Your task to perform on an android device: remove spam from my inbox in the gmail app Image 0: 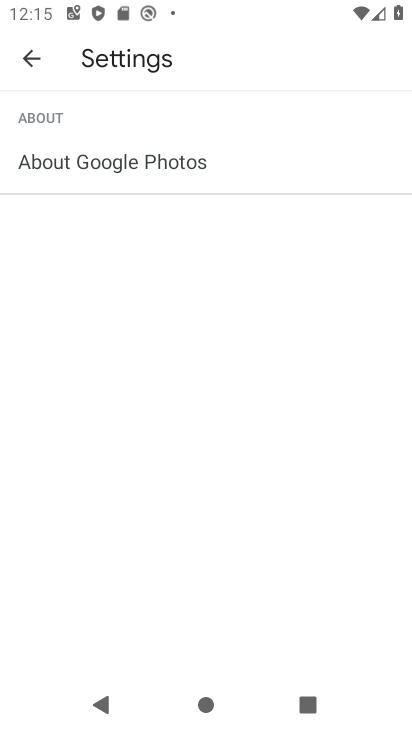
Step 0: press home button
Your task to perform on an android device: remove spam from my inbox in the gmail app Image 1: 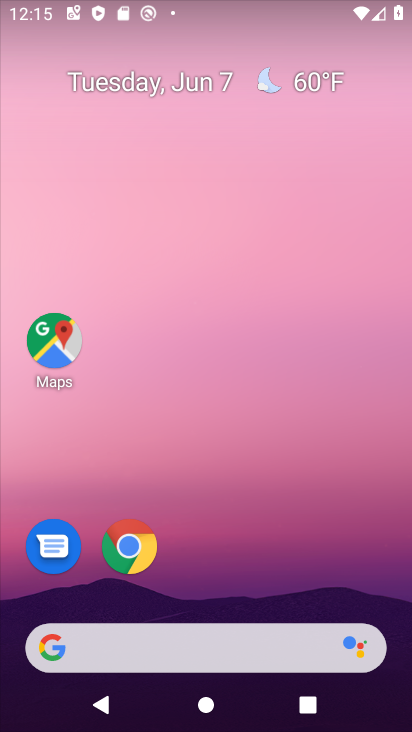
Step 1: drag from (139, 562) to (103, 90)
Your task to perform on an android device: remove spam from my inbox in the gmail app Image 2: 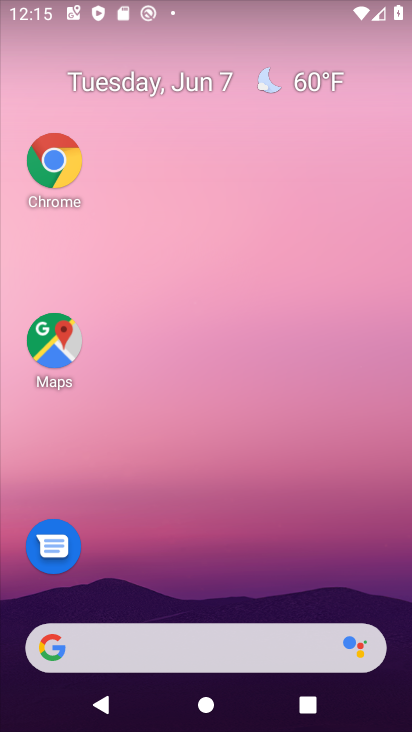
Step 2: drag from (151, 405) to (108, 153)
Your task to perform on an android device: remove spam from my inbox in the gmail app Image 3: 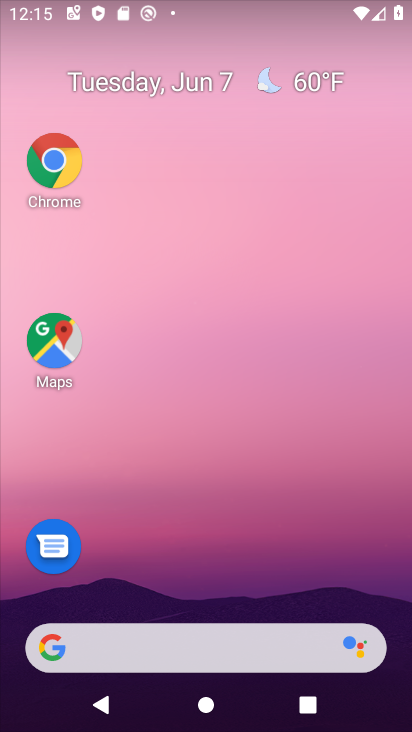
Step 3: drag from (253, 472) to (255, 90)
Your task to perform on an android device: remove spam from my inbox in the gmail app Image 4: 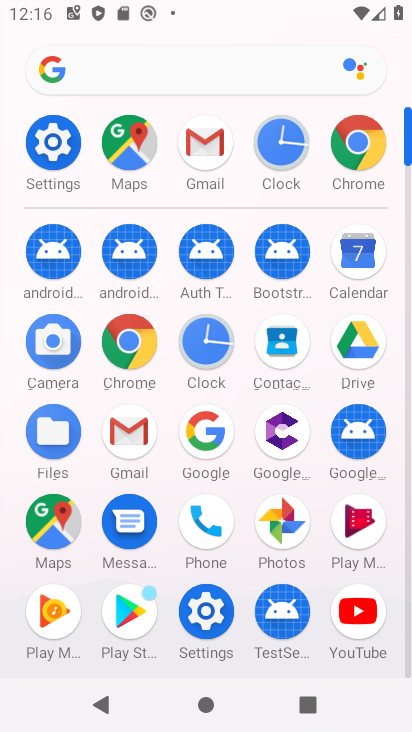
Step 4: click (190, 126)
Your task to perform on an android device: remove spam from my inbox in the gmail app Image 5: 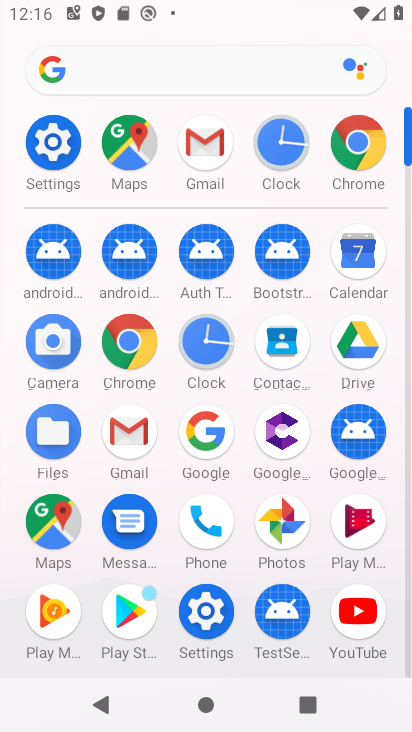
Step 5: click (190, 126)
Your task to perform on an android device: remove spam from my inbox in the gmail app Image 6: 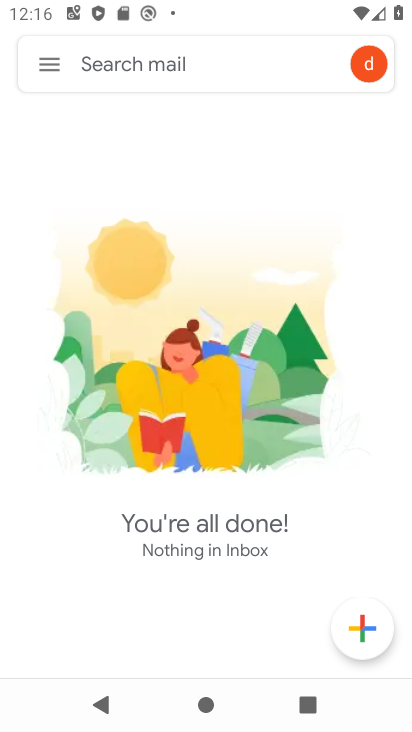
Step 6: click (29, 70)
Your task to perform on an android device: remove spam from my inbox in the gmail app Image 7: 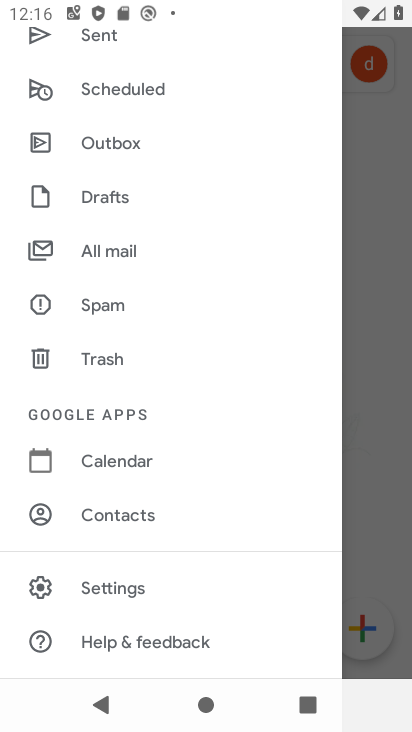
Step 7: click (118, 293)
Your task to perform on an android device: remove spam from my inbox in the gmail app Image 8: 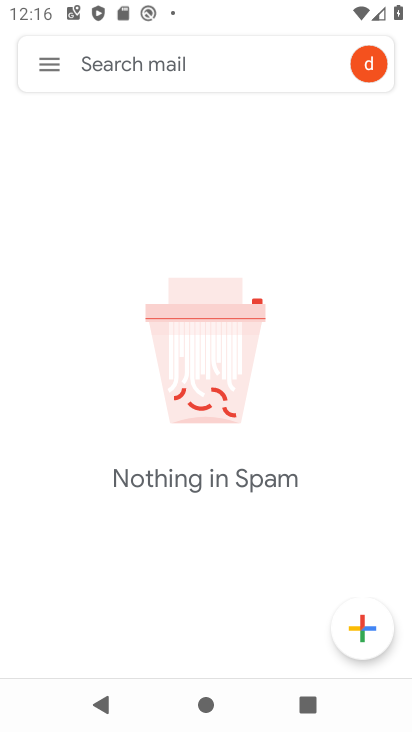
Step 8: task complete